Your task to perform on an android device: delete browsing data in the chrome app Image 0: 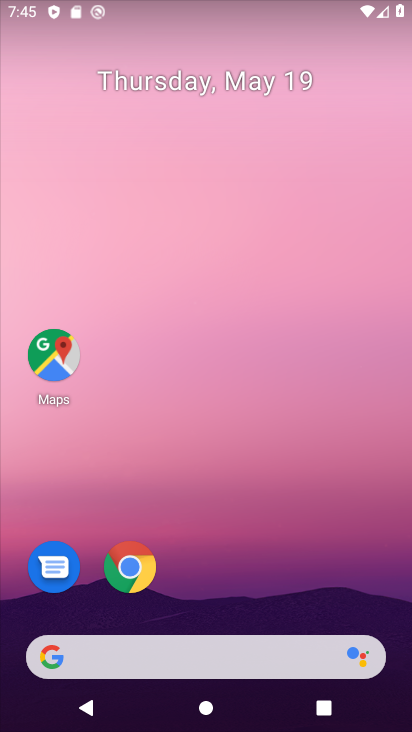
Step 0: click (123, 547)
Your task to perform on an android device: delete browsing data in the chrome app Image 1: 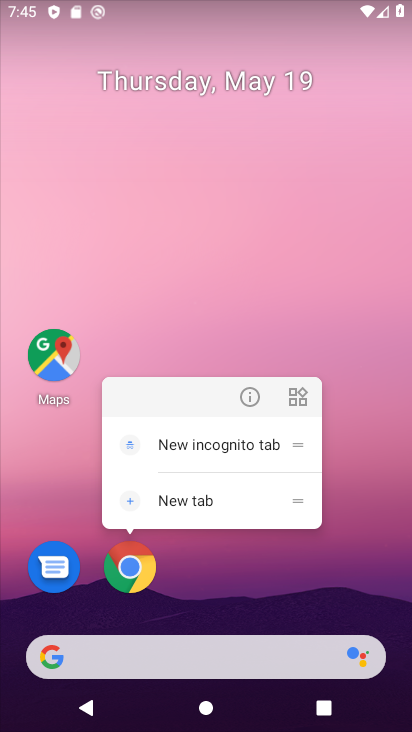
Step 1: click (146, 578)
Your task to perform on an android device: delete browsing data in the chrome app Image 2: 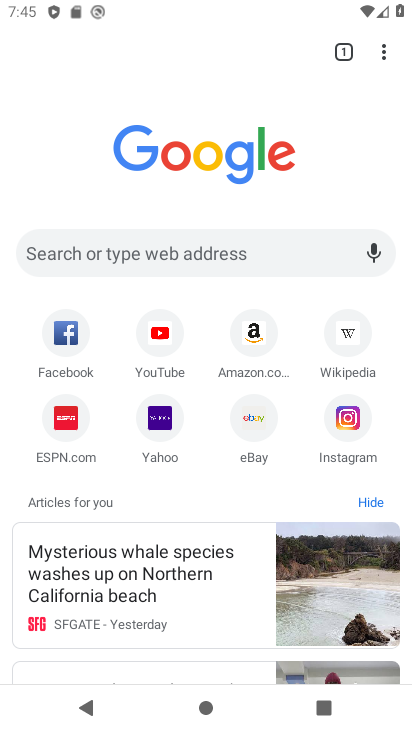
Step 2: drag from (381, 59) to (199, 286)
Your task to perform on an android device: delete browsing data in the chrome app Image 3: 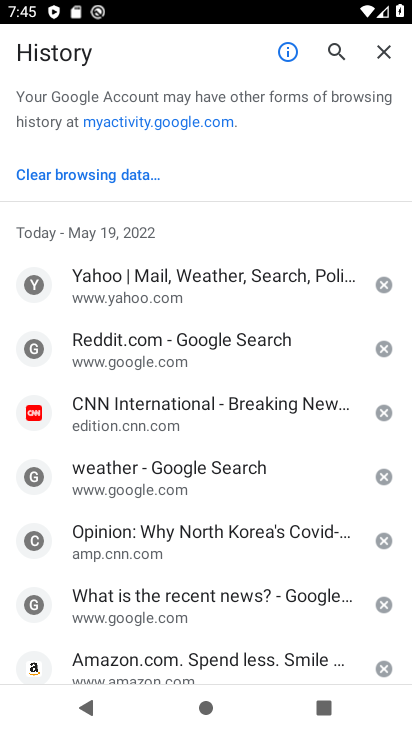
Step 3: click (77, 169)
Your task to perform on an android device: delete browsing data in the chrome app Image 4: 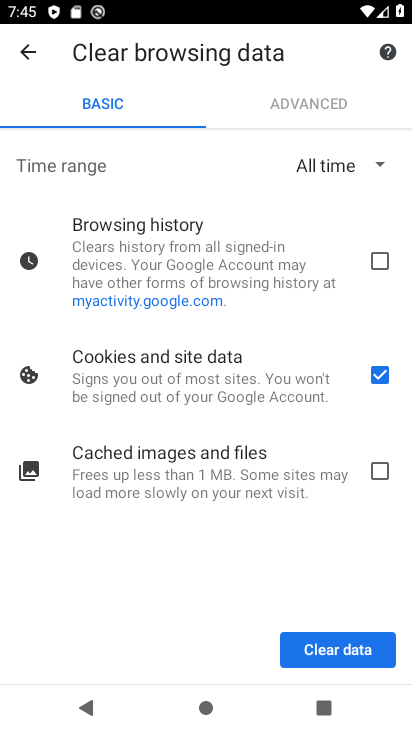
Step 4: click (381, 261)
Your task to perform on an android device: delete browsing data in the chrome app Image 5: 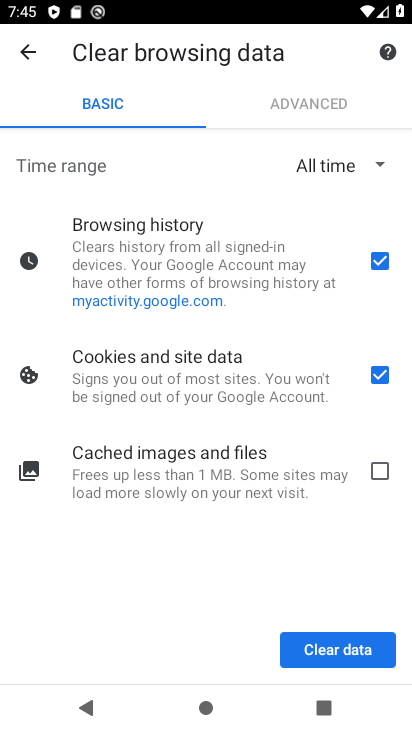
Step 5: click (377, 666)
Your task to perform on an android device: delete browsing data in the chrome app Image 6: 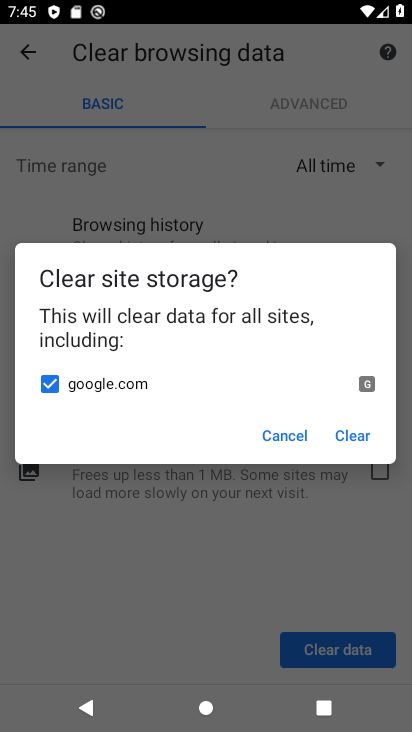
Step 6: click (364, 426)
Your task to perform on an android device: delete browsing data in the chrome app Image 7: 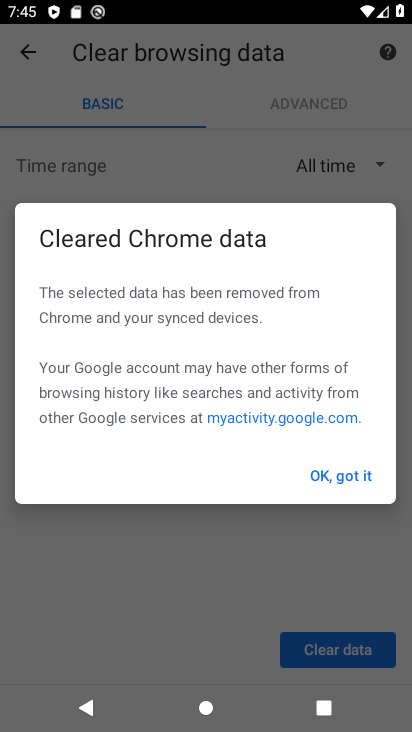
Step 7: click (339, 466)
Your task to perform on an android device: delete browsing data in the chrome app Image 8: 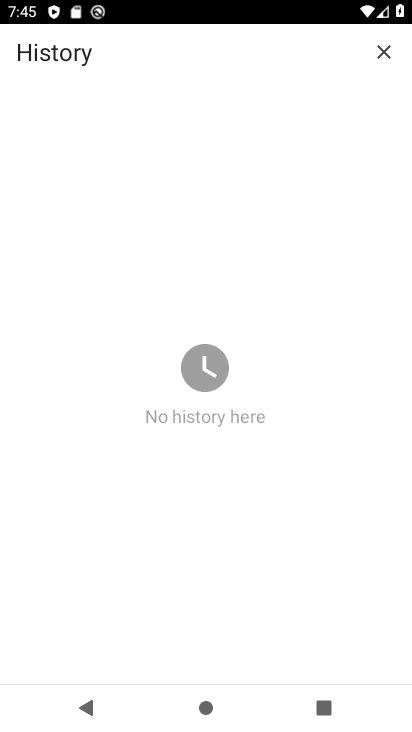
Step 8: task complete